Your task to perform on an android device: Search for sushi restaurants on Maps Image 0: 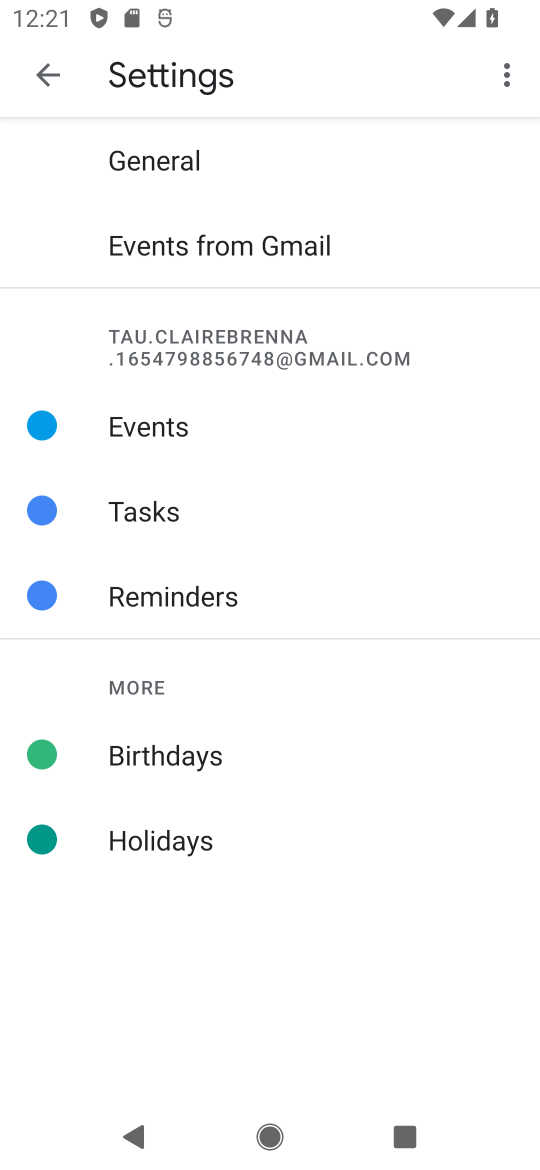
Step 0: press back button
Your task to perform on an android device: Search for sushi restaurants on Maps Image 1: 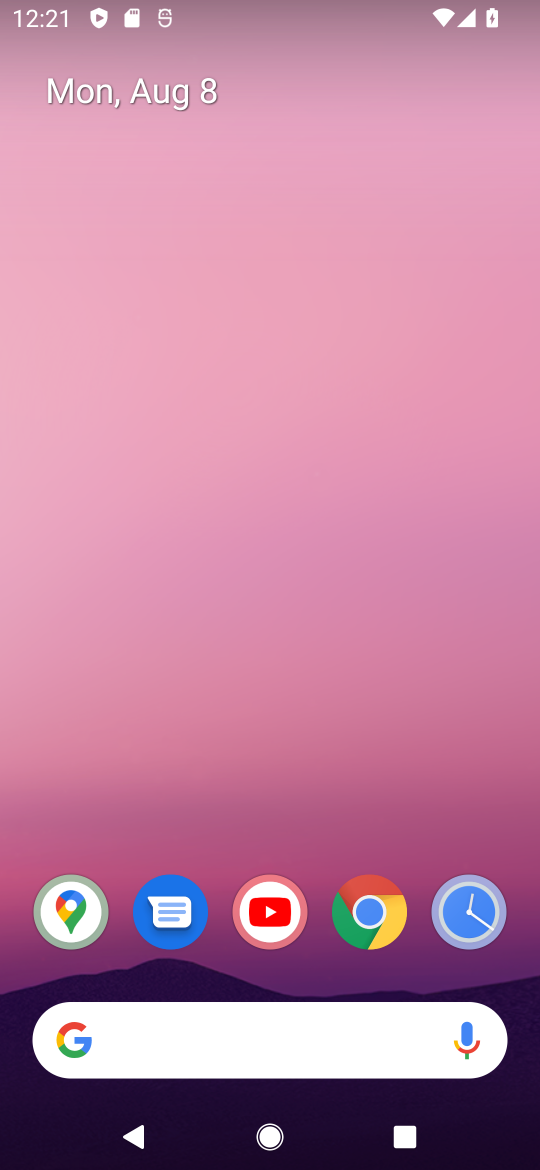
Step 1: click (86, 911)
Your task to perform on an android device: Search for sushi restaurants on Maps Image 2: 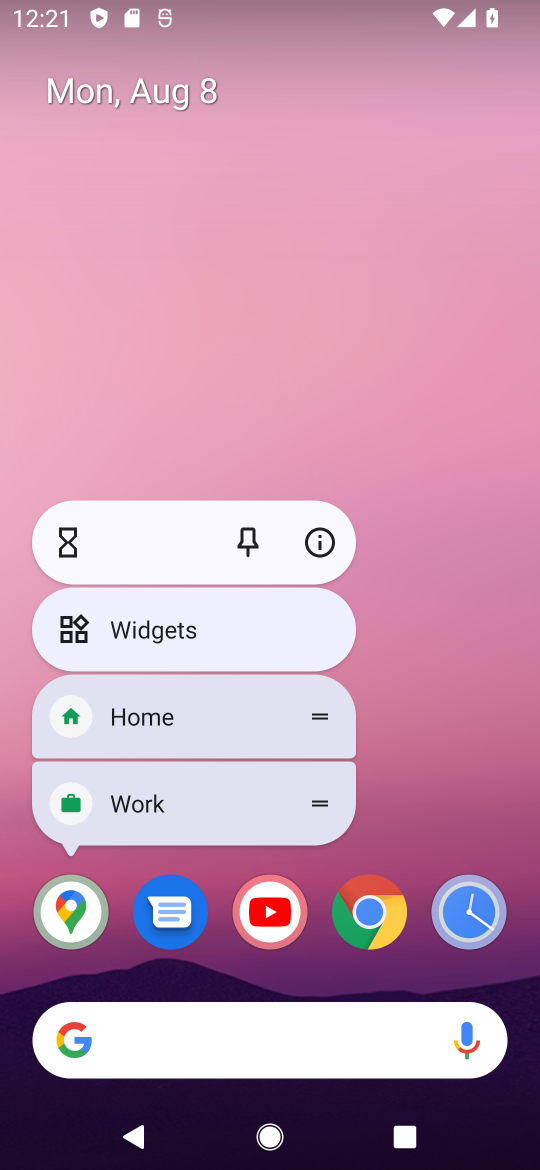
Step 2: click (62, 905)
Your task to perform on an android device: Search for sushi restaurants on Maps Image 3: 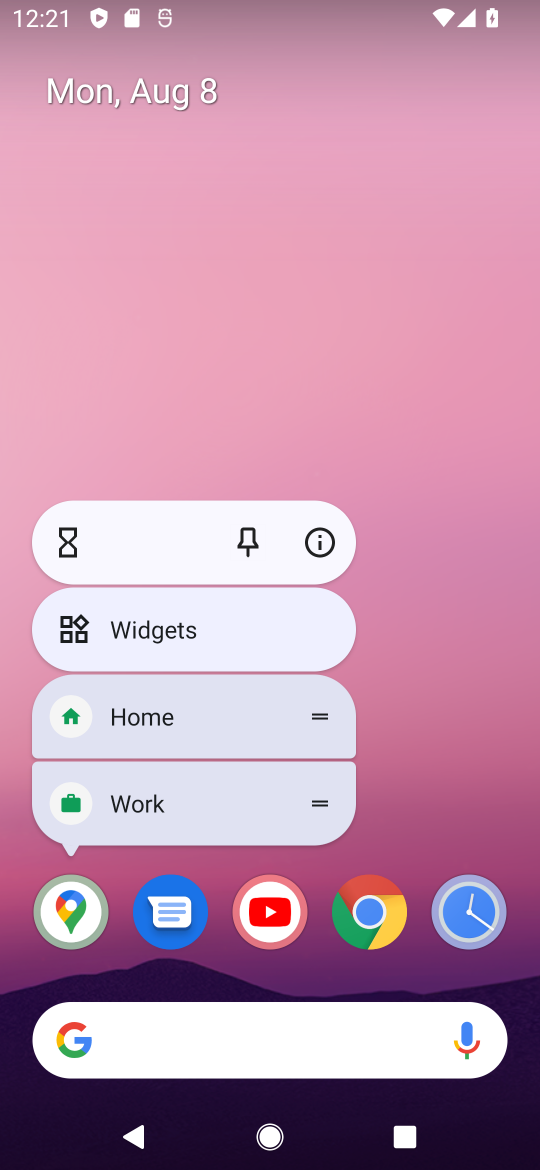
Step 3: click (76, 917)
Your task to perform on an android device: Search for sushi restaurants on Maps Image 4: 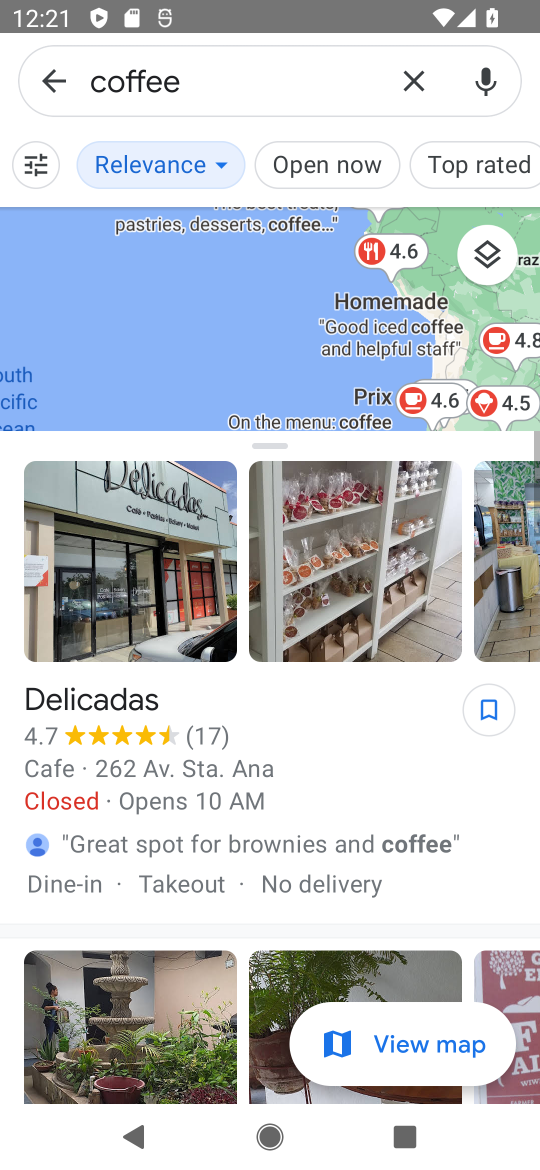
Step 4: click (403, 80)
Your task to perform on an android device: Search for sushi restaurants on Maps Image 5: 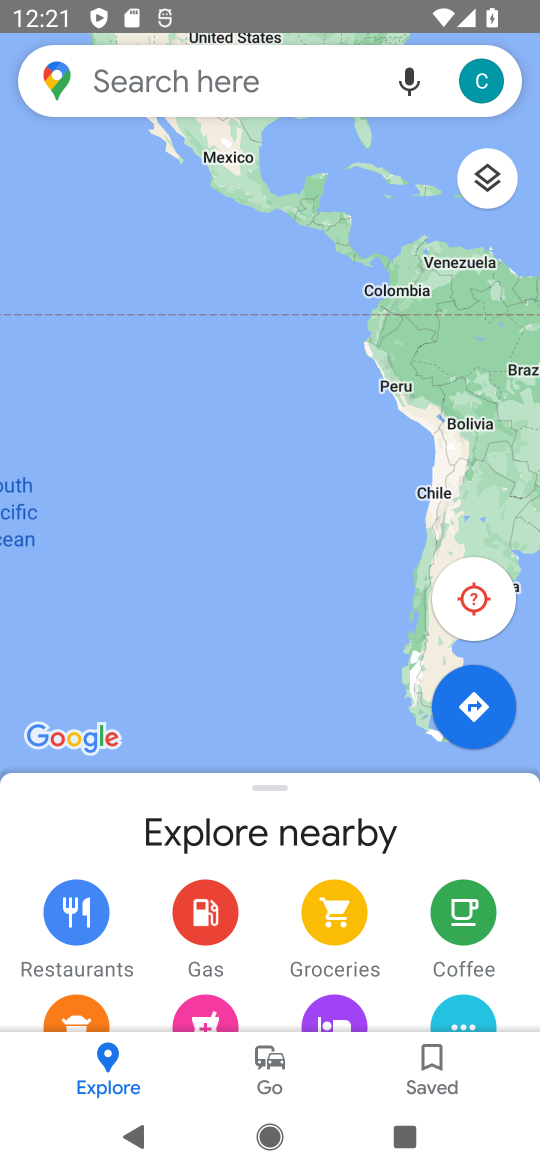
Step 5: click (210, 75)
Your task to perform on an android device: Search for sushi restaurants on Maps Image 6: 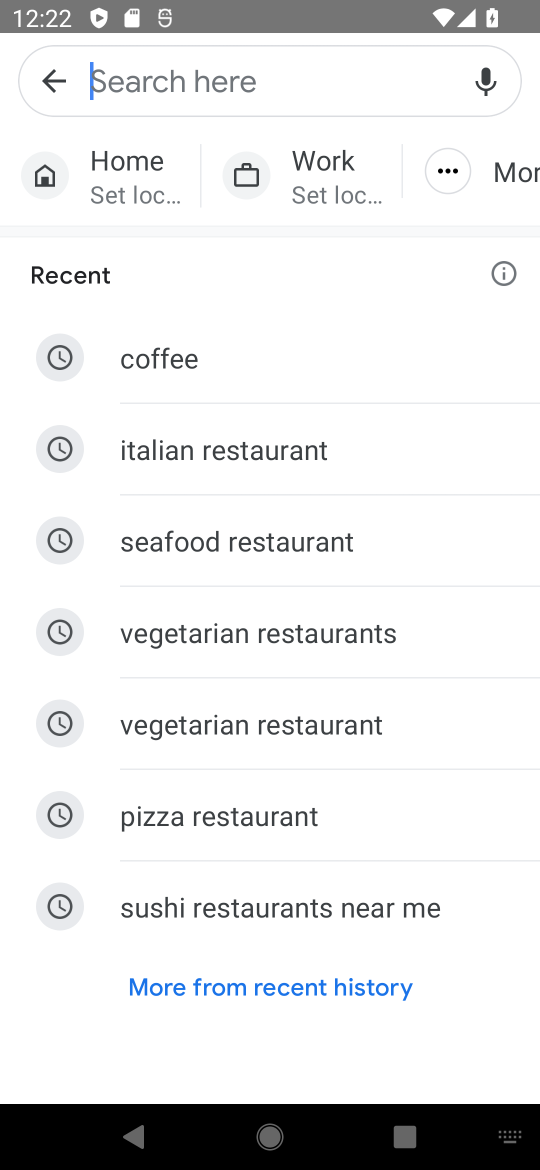
Step 6: click (262, 898)
Your task to perform on an android device: Search for sushi restaurants on Maps Image 7: 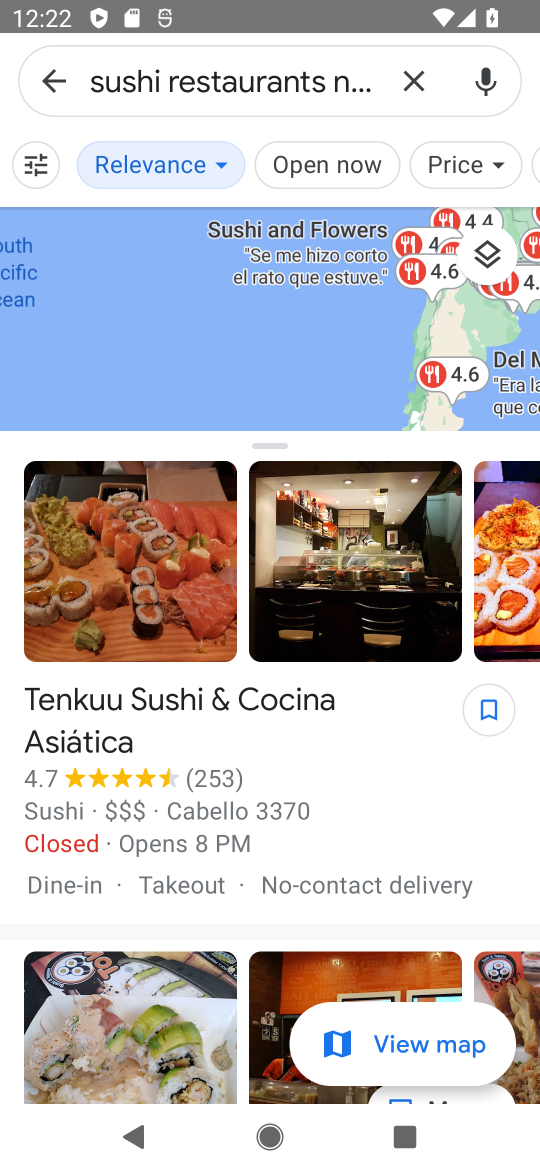
Step 7: task complete